Your task to perform on an android device: change the clock display to analog Image 0: 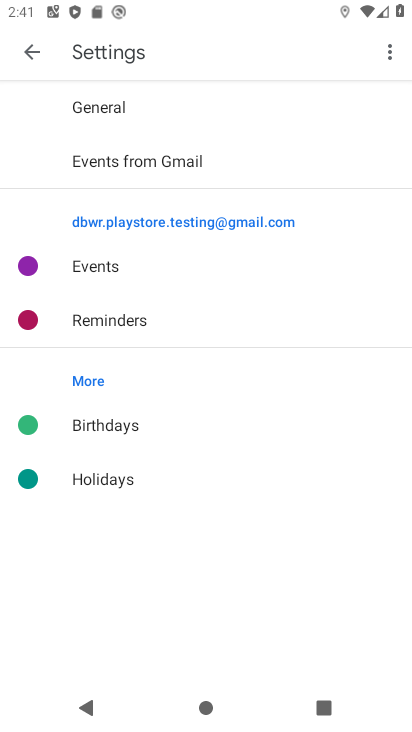
Step 0: press home button
Your task to perform on an android device: change the clock display to analog Image 1: 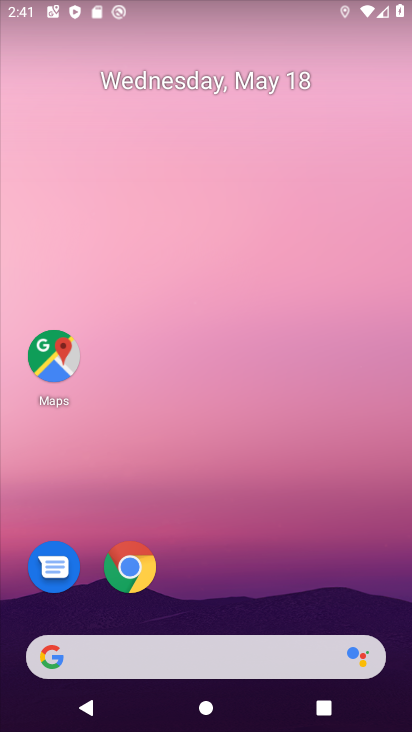
Step 1: drag from (228, 570) to (249, 136)
Your task to perform on an android device: change the clock display to analog Image 2: 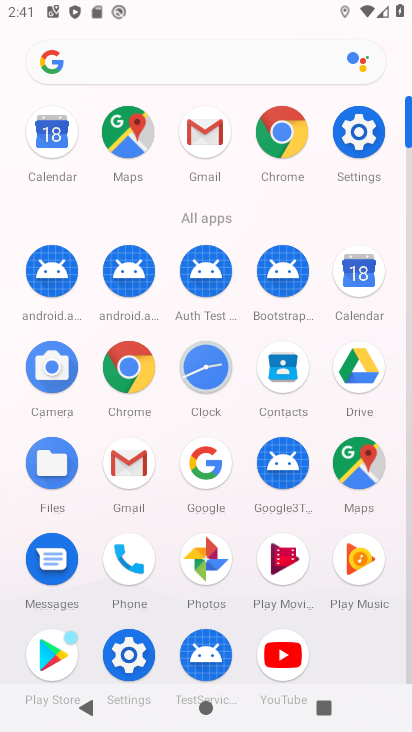
Step 2: click (185, 375)
Your task to perform on an android device: change the clock display to analog Image 3: 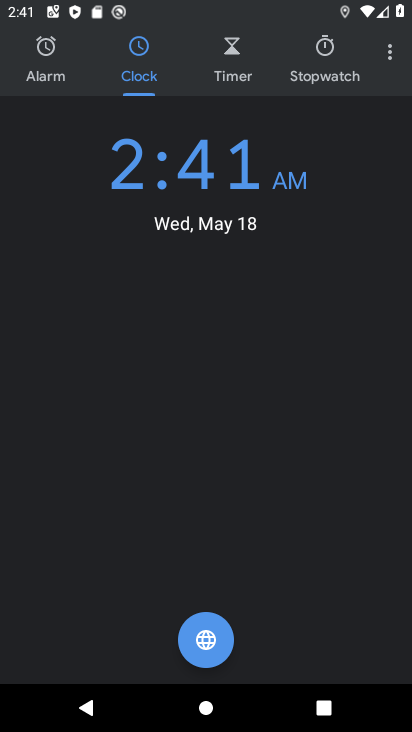
Step 3: click (391, 63)
Your task to perform on an android device: change the clock display to analog Image 4: 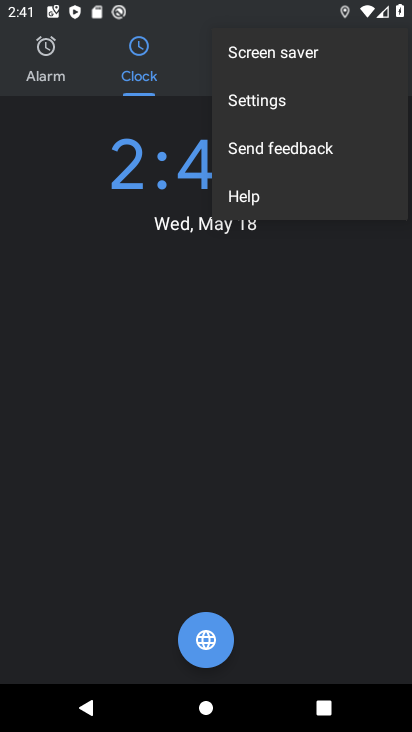
Step 4: click (246, 100)
Your task to perform on an android device: change the clock display to analog Image 5: 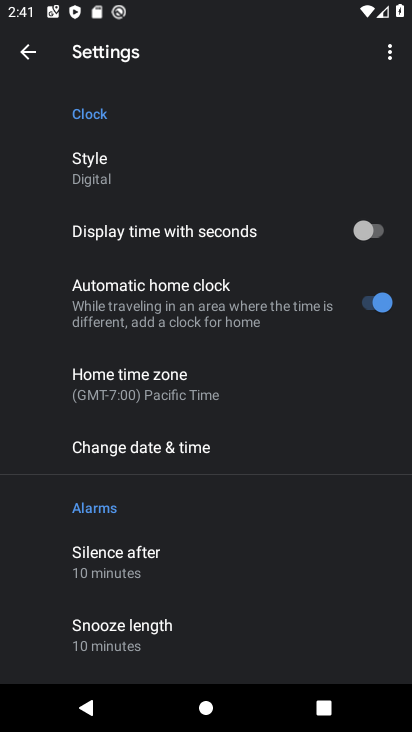
Step 5: drag from (200, 646) to (193, 336)
Your task to perform on an android device: change the clock display to analog Image 6: 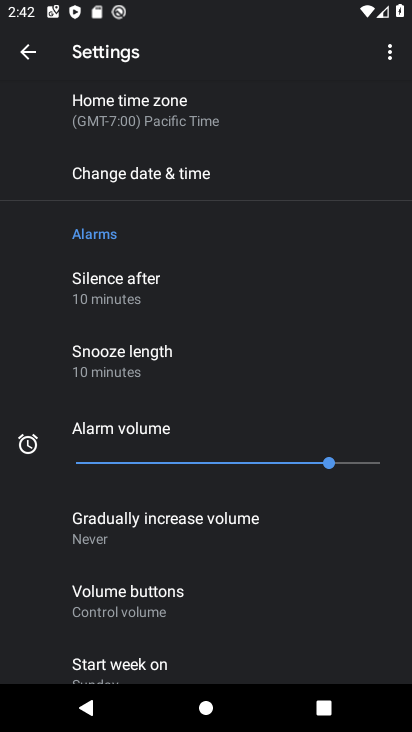
Step 6: drag from (148, 336) to (117, 606)
Your task to perform on an android device: change the clock display to analog Image 7: 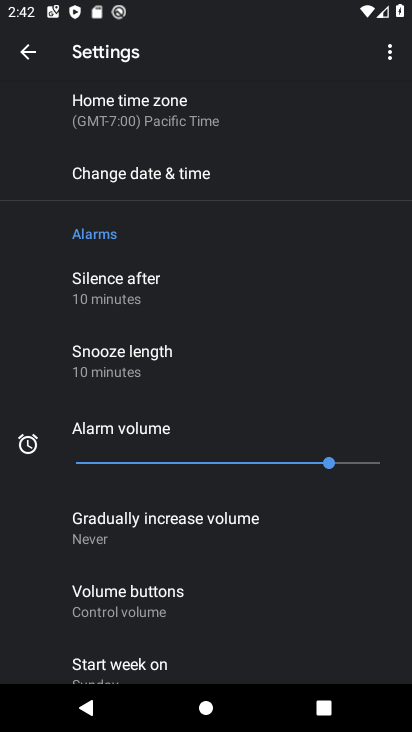
Step 7: drag from (218, 195) to (193, 489)
Your task to perform on an android device: change the clock display to analog Image 8: 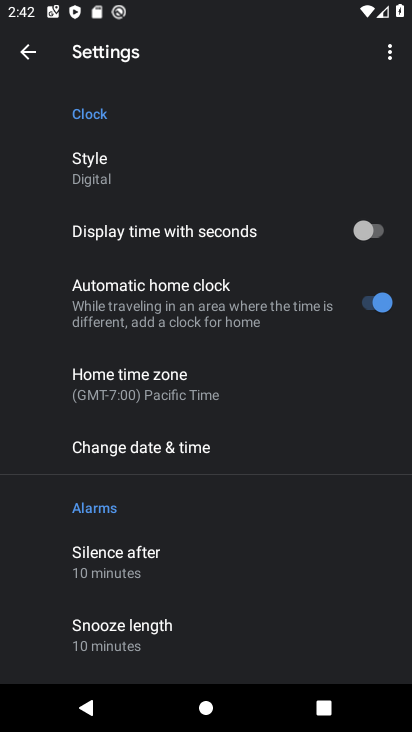
Step 8: click (225, 404)
Your task to perform on an android device: change the clock display to analog Image 9: 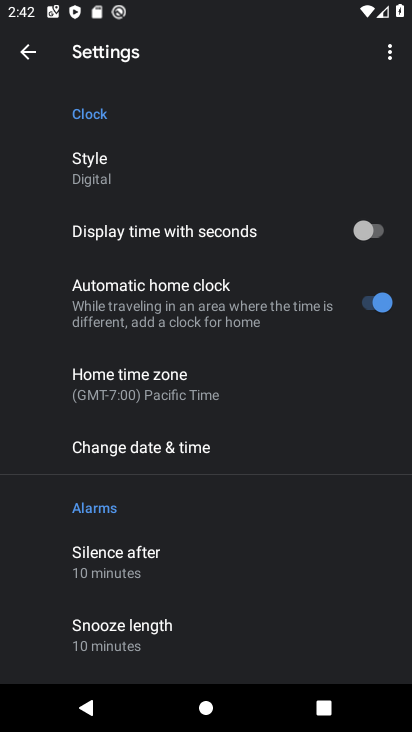
Step 9: click (103, 175)
Your task to perform on an android device: change the clock display to analog Image 10: 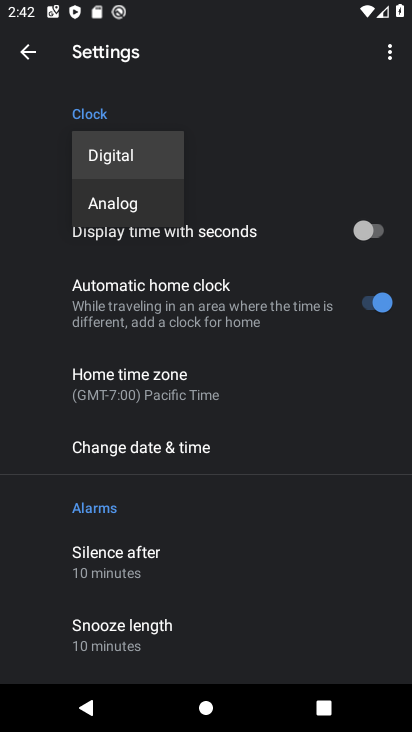
Step 10: click (117, 201)
Your task to perform on an android device: change the clock display to analog Image 11: 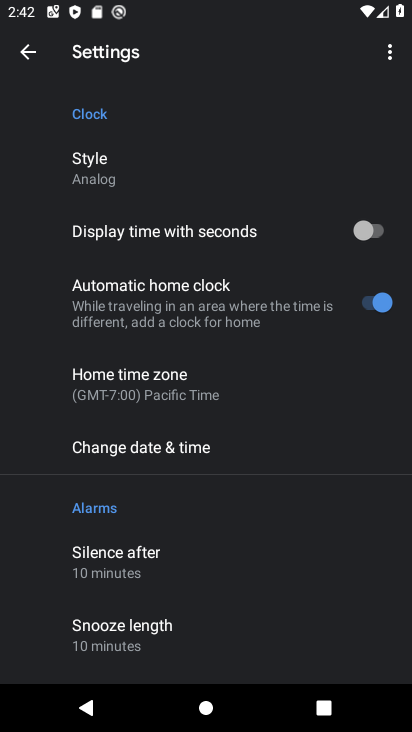
Step 11: task complete